Your task to perform on an android device: open app "Indeed Job Search" Image 0: 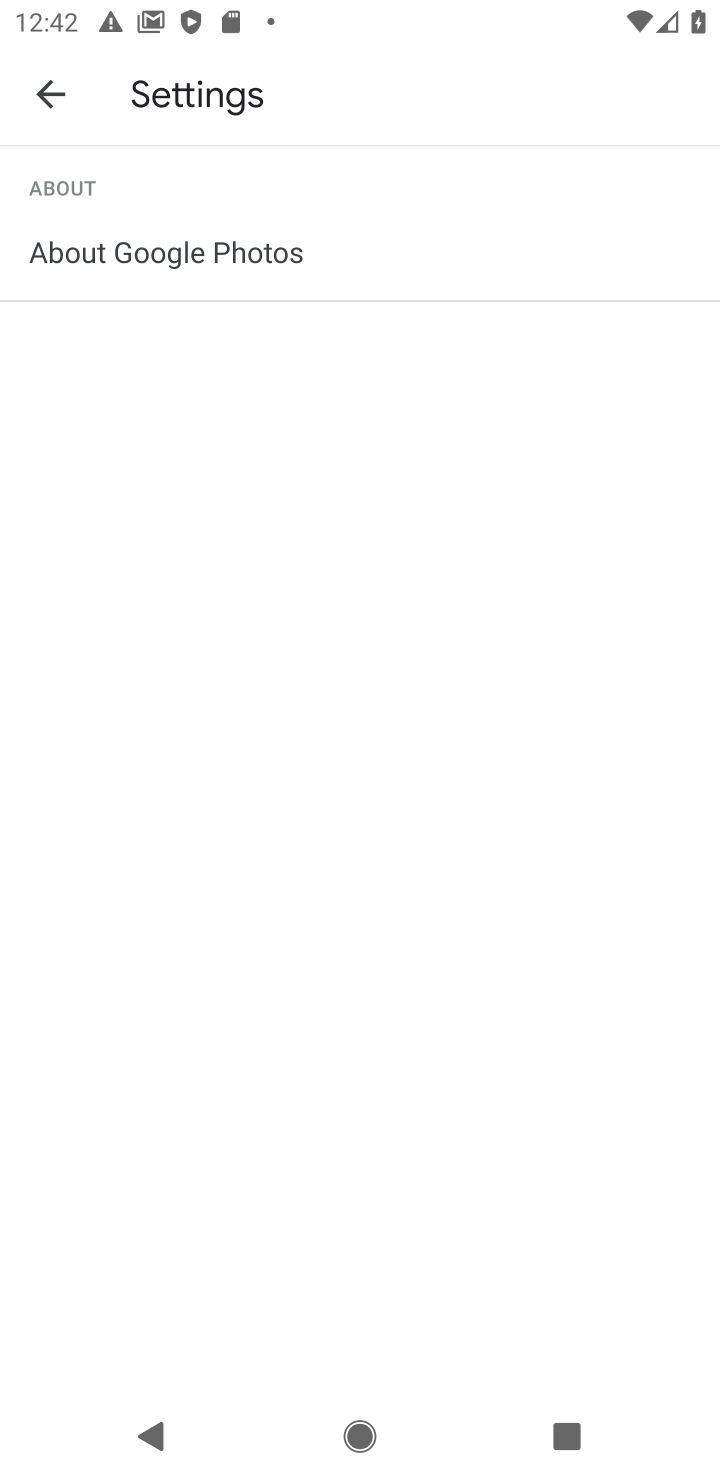
Step 0: press home button
Your task to perform on an android device: open app "Indeed Job Search" Image 1: 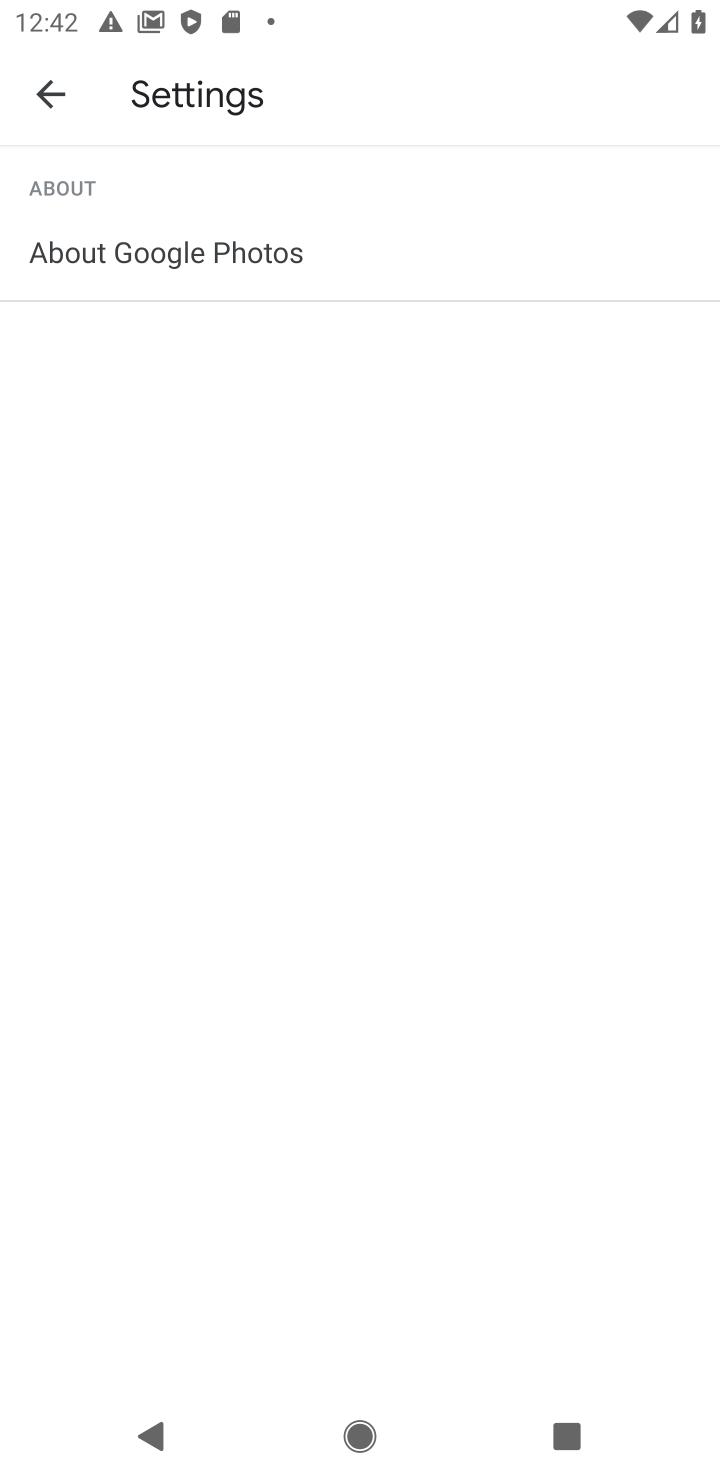
Step 1: press home button
Your task to perform on an android device: open app "Indeed Job Search" Image 2: 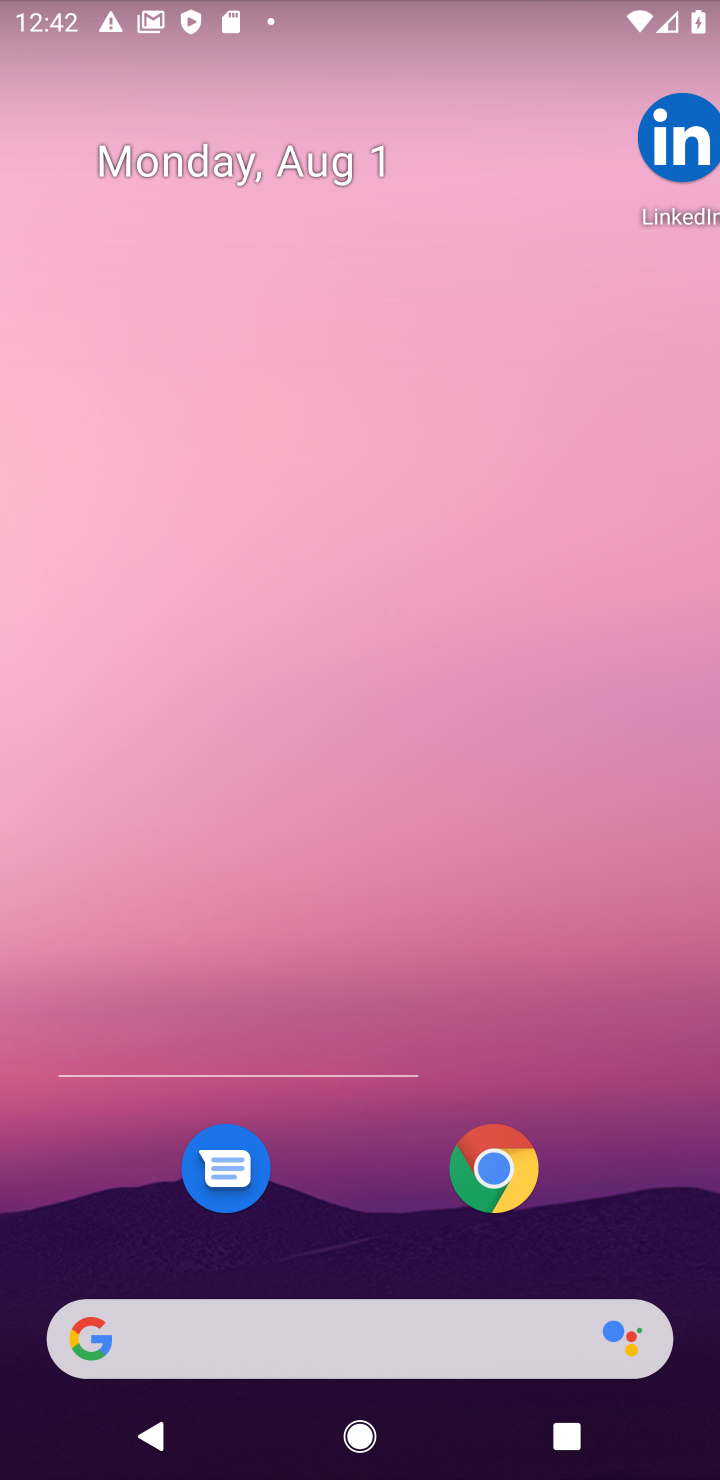
Step 2: press home button
Your task to perform on an android device: open app "Indeed Job Search" Image 3: 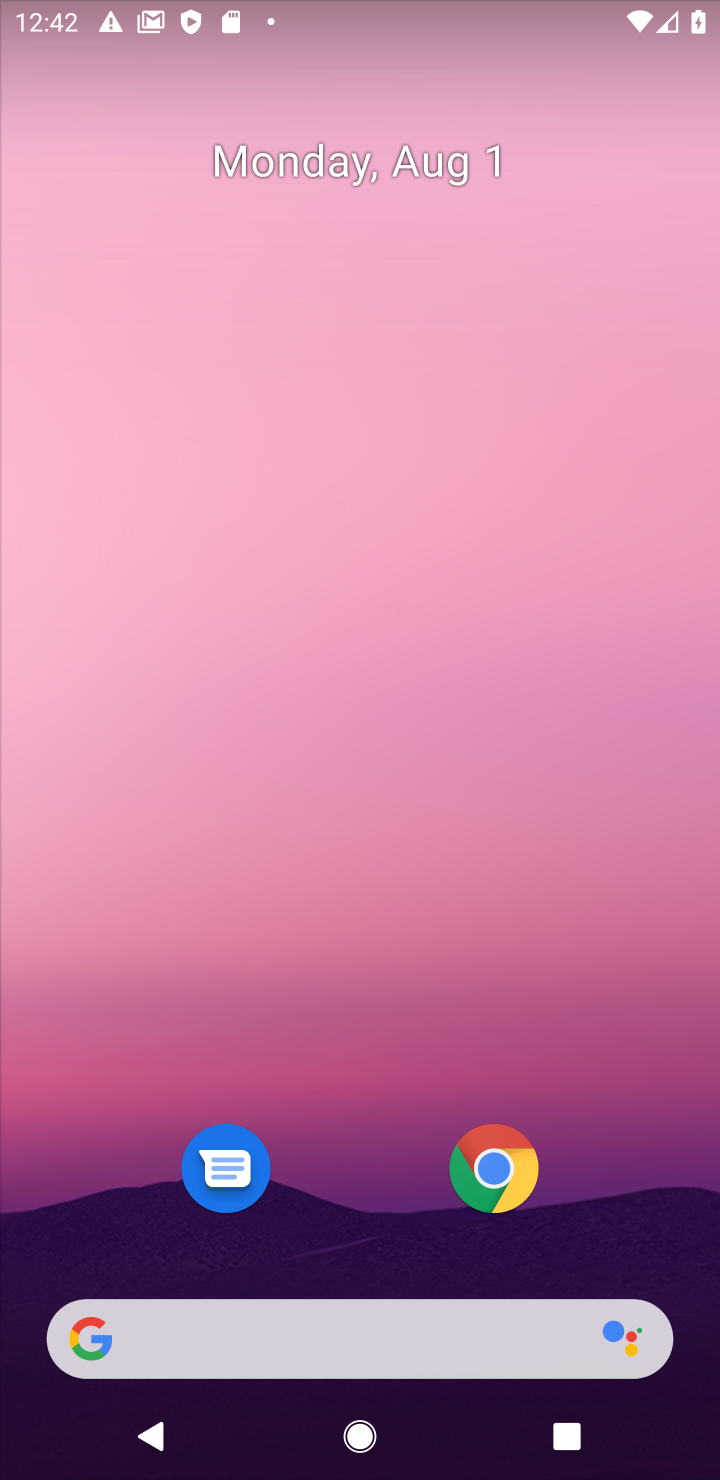
Step 3: drag from (371, 1254) to (419, 81)
Your task to perform on an android device: open app "Indeed Job Search" Image 4: 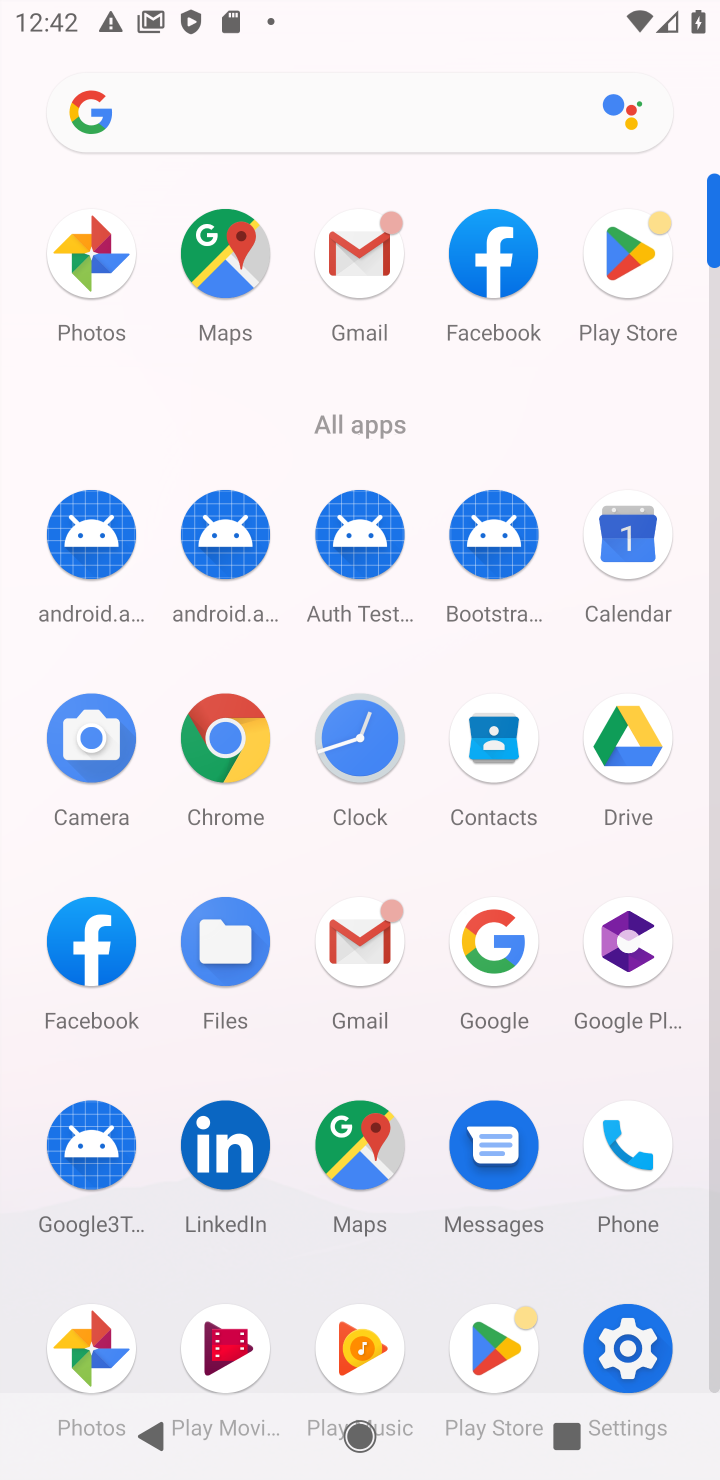
Step 4: click (635, 270)
Your task to perform on an android device: open app "Indeed Job Search" Image 5: 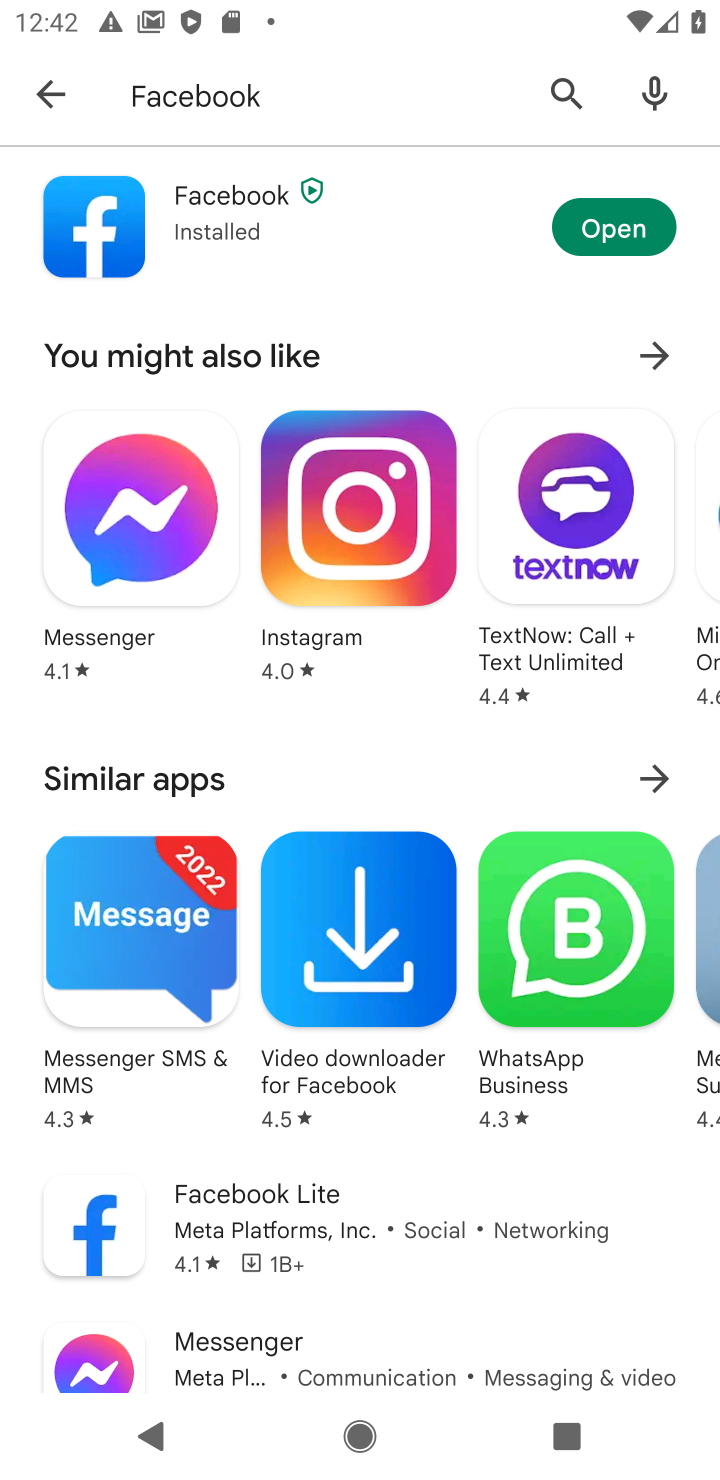
Step 5: click (403, 142)
Your task to perform on an android device: open app "Indeed Job Search" Image 6: 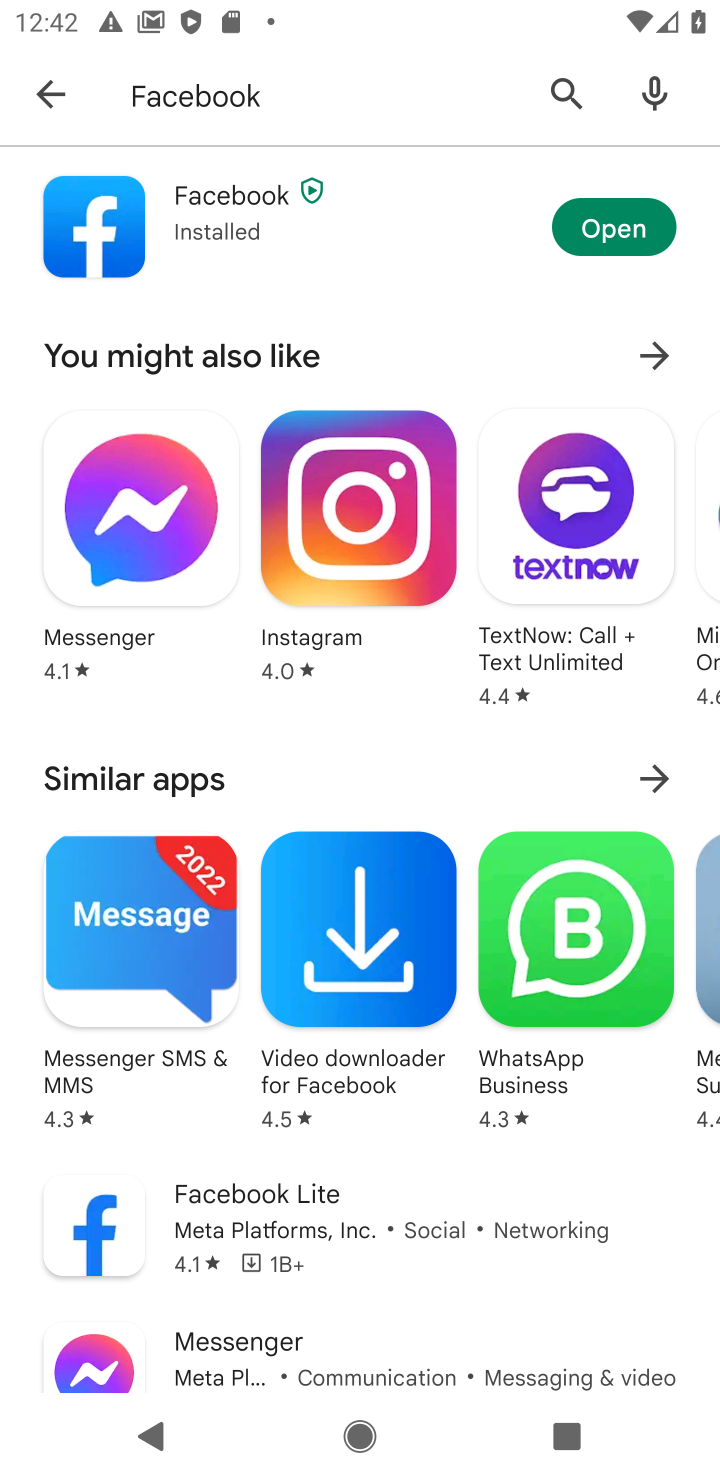
Step 6: click (405, 123)
Your task to perform on an android device: open app "Indeed Job Search" Image 7: 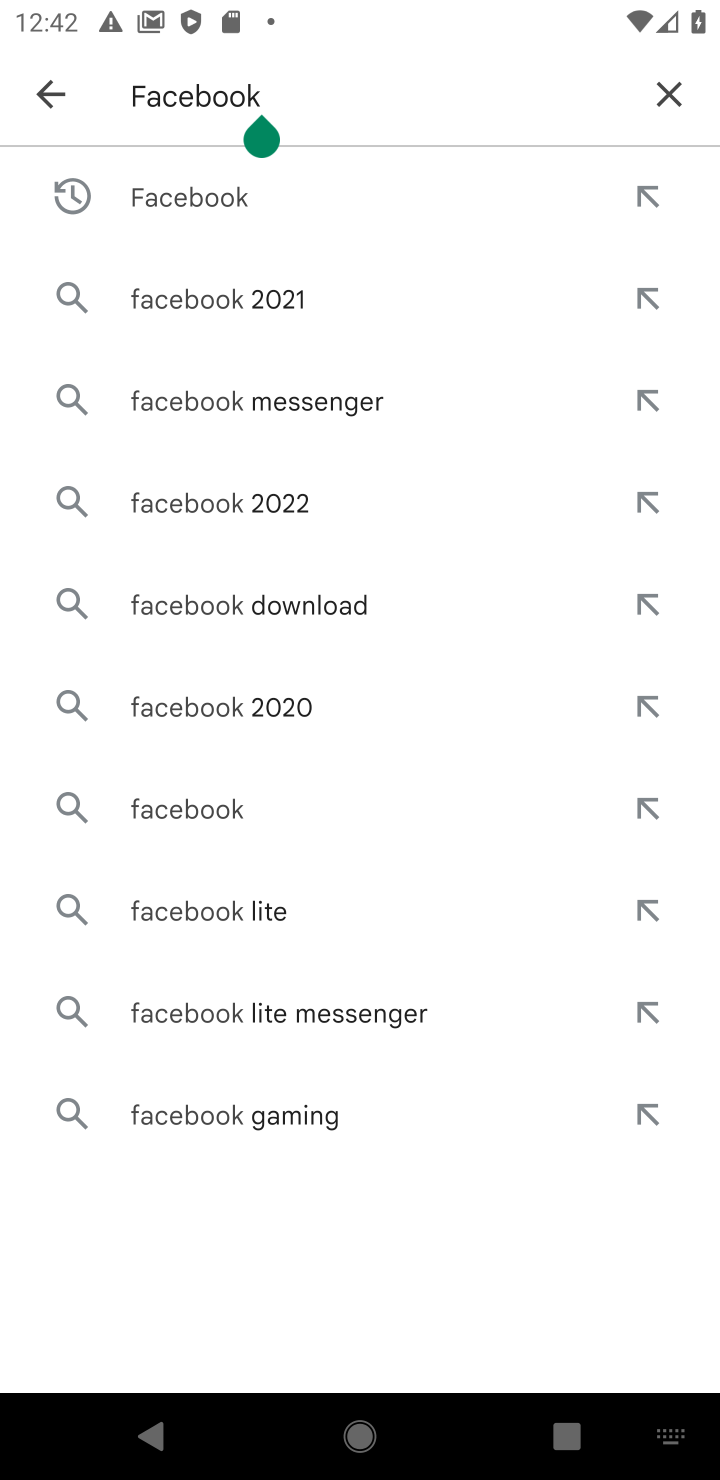
Step 7: click (674, 82)
Your task to perform on an android device: open app "Indeed Job Search" Image 8: 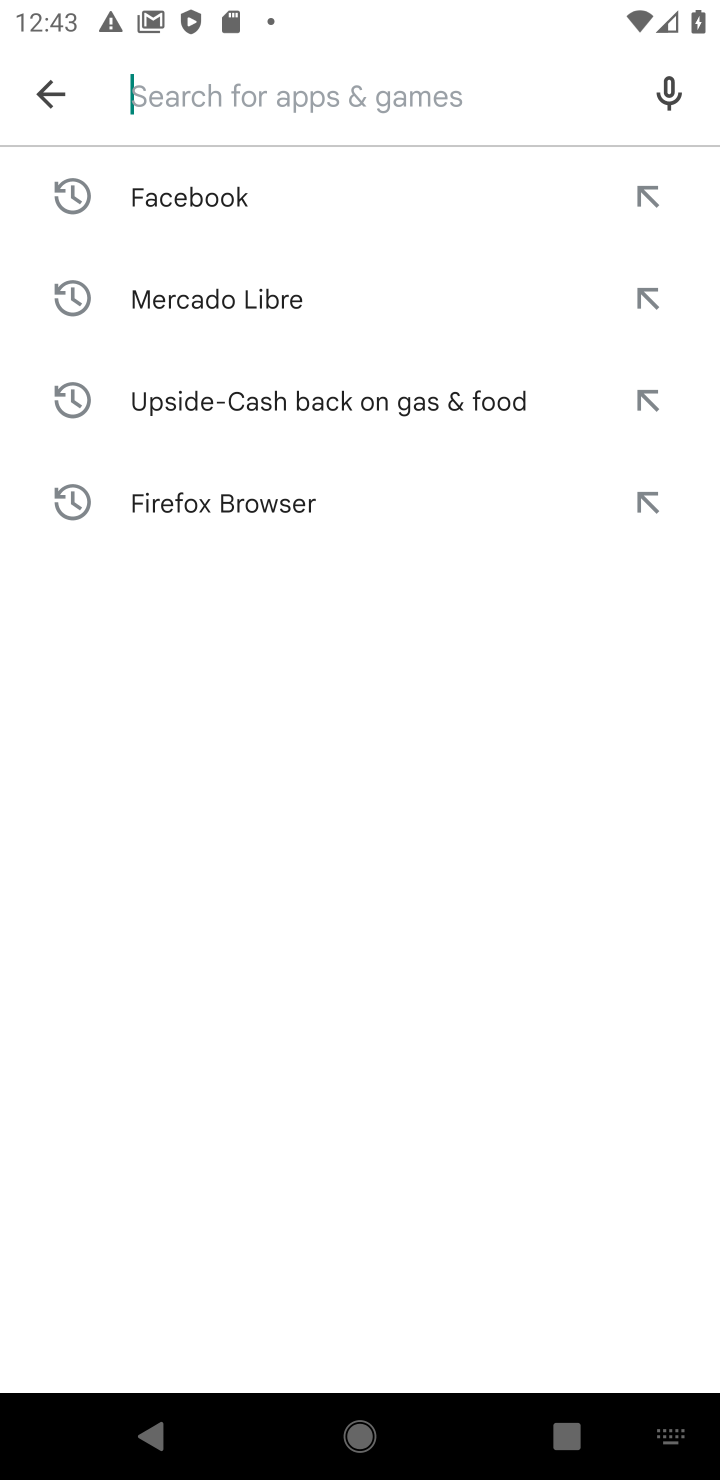
Step 8: type "Indeed Job Search"
Your task to perform on an android device: open app "Indeed Job Search" Image 9: 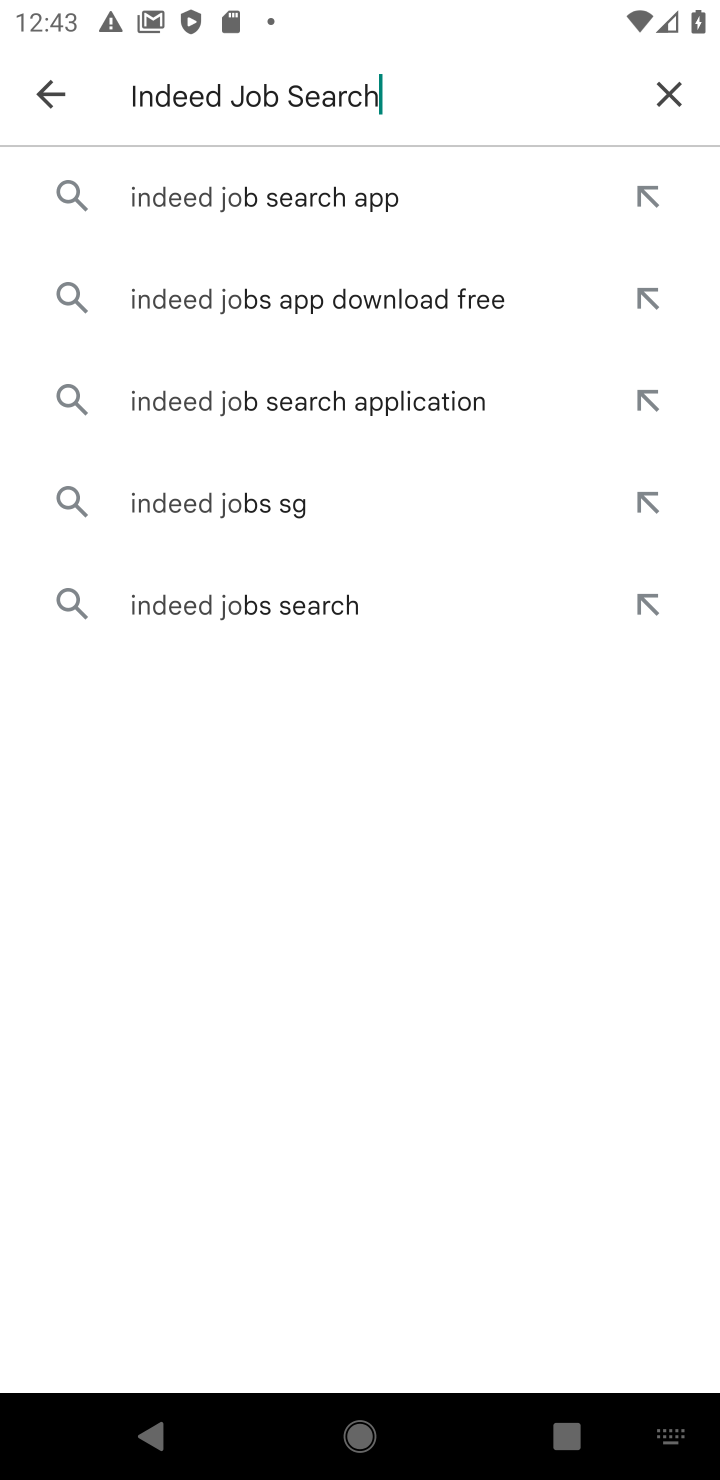
Step 9: press enter
Your task to perform on an android device: open app "Indeed Job Search" Image 10: 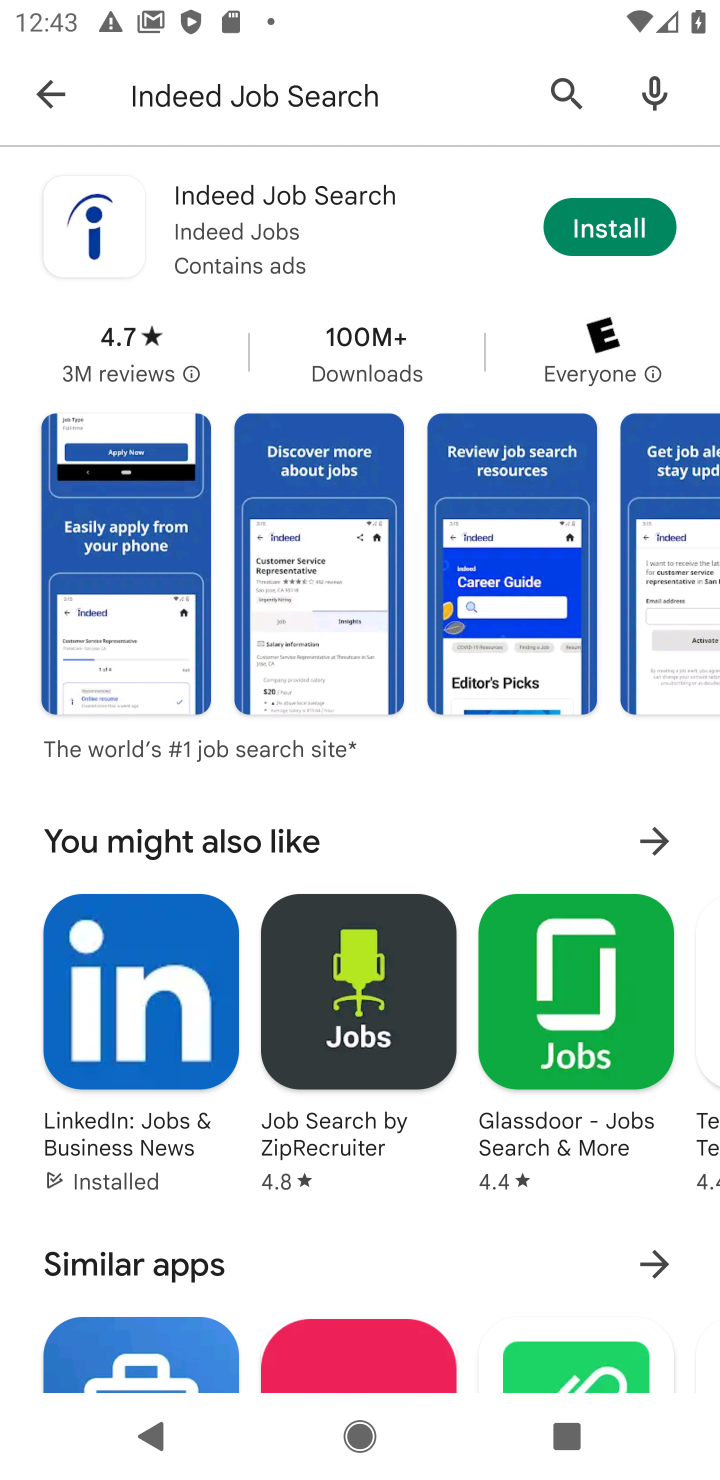
Step 10: task complete